Your task to perform on an android device: Go to wifi settings Image 0: 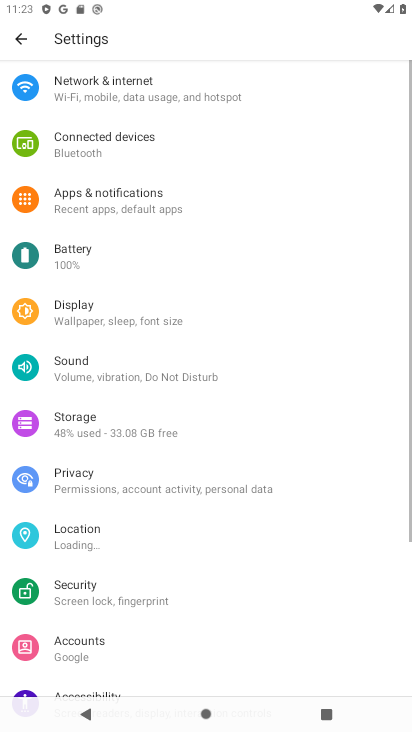
Step 0: press home button
Your task to perform on an android device: Go to wifi settings Image 1: 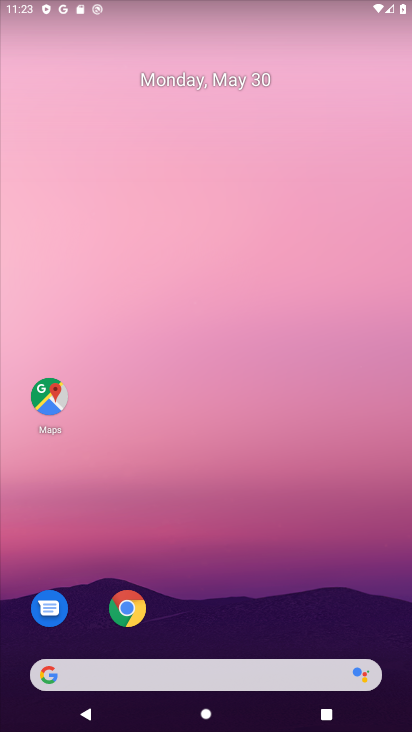
Step 1: drag from (199, 576) to (227, 19)
Your task to perform on an android device: Go to wifi settings Image 2: 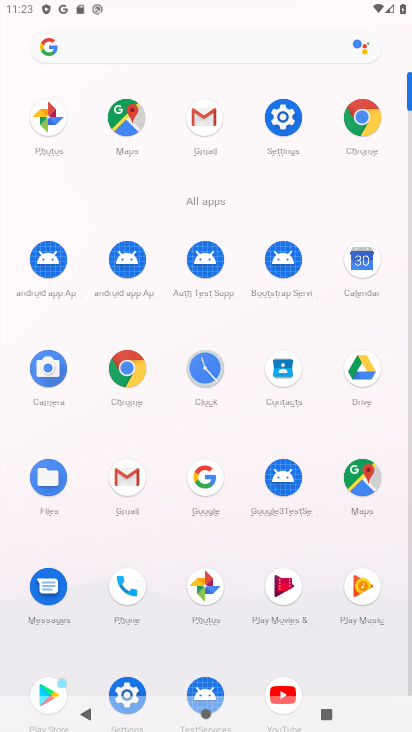
Step 2: click (279, 115)
Your task to perform on an android device: Go to wifi settings Image 3: 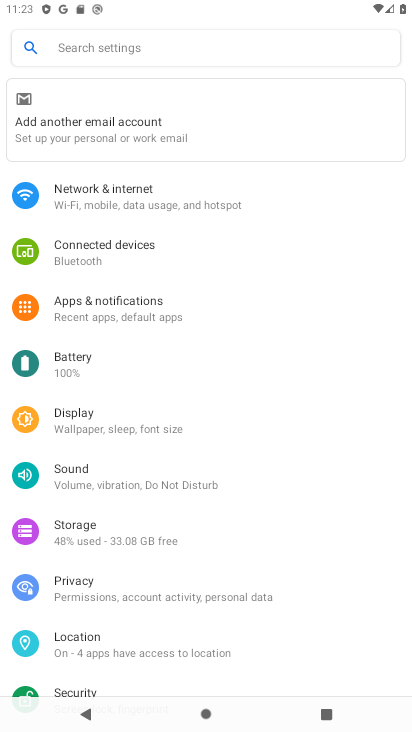
Step 3: click (91, 194)
Your task to perform on an android device: Go to wifi settings Image 4: 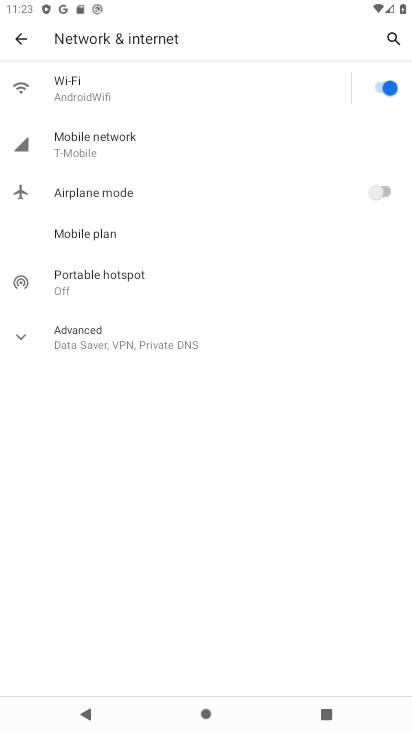
Step 4: click (150, 84)
Your task to perform on an android device: Go to wifi settings Image 5: 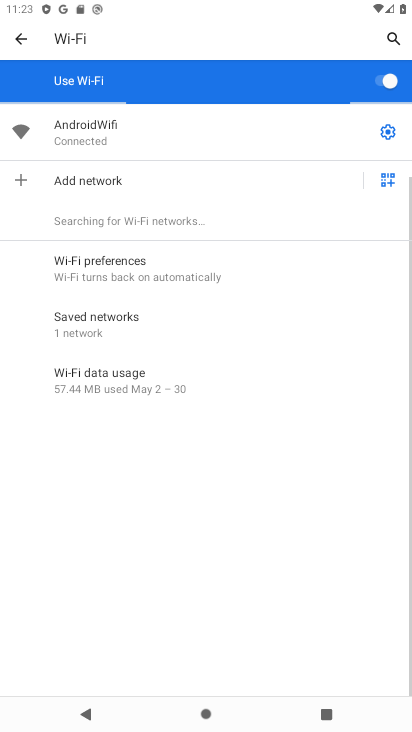
Step 5: click (172, 143)
Your task to perform on an android device: Go to wifi settings Image 6: 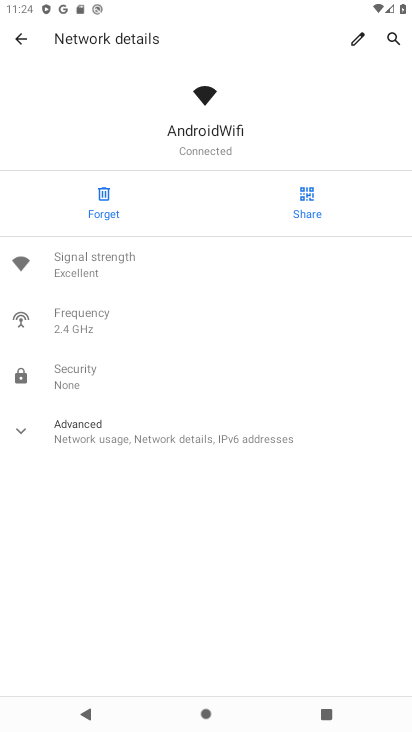
Step 6: task complete